Your task to perform on an android device: Go to privacy settings Image 0: 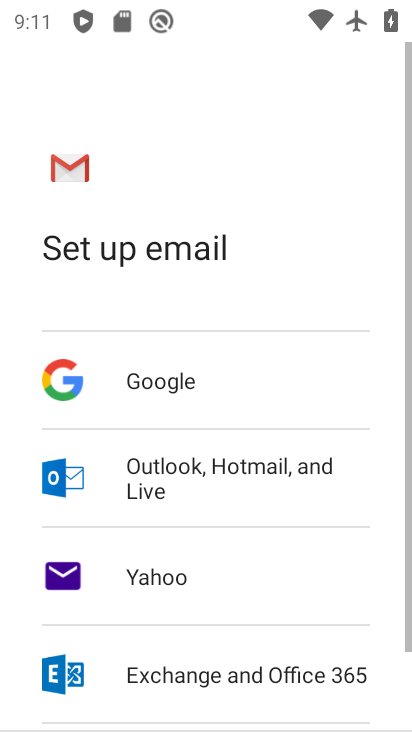
Step 0: press home button
Your task to perform on an android device: Go to privacy settings Image 1: 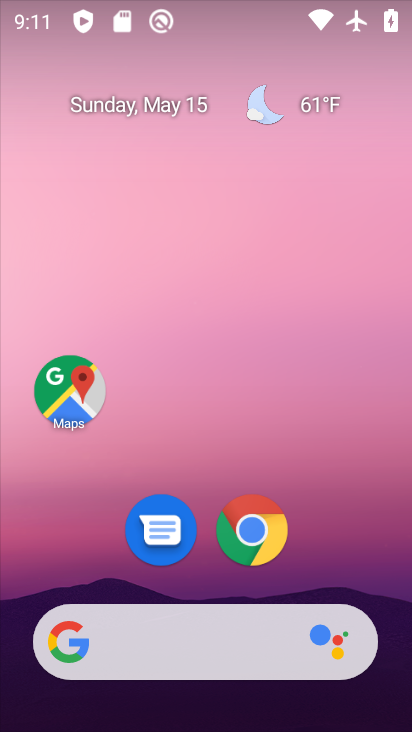
Step 1: drag from (215, 719) to (224, 121)
Your task to perform on an android device: Go to privacy settings Image 2: 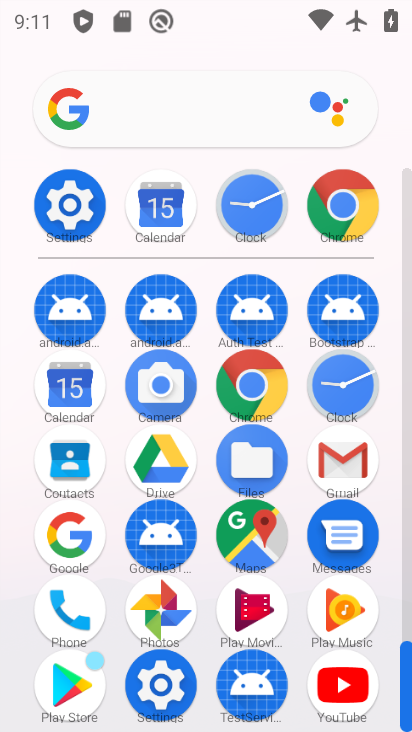
Step 2: click (60, 199)
Your task to perform on an android device: Go to privacy settings Image 3: 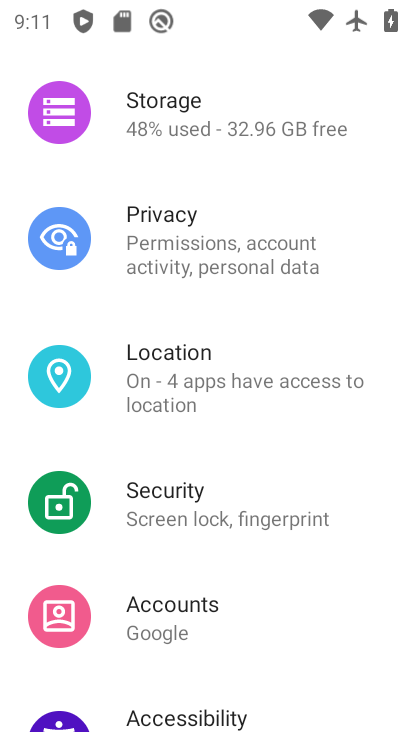
Step 3: click (173, 231)
Your task to perform on an android device: Go to privacy settings Image 4: 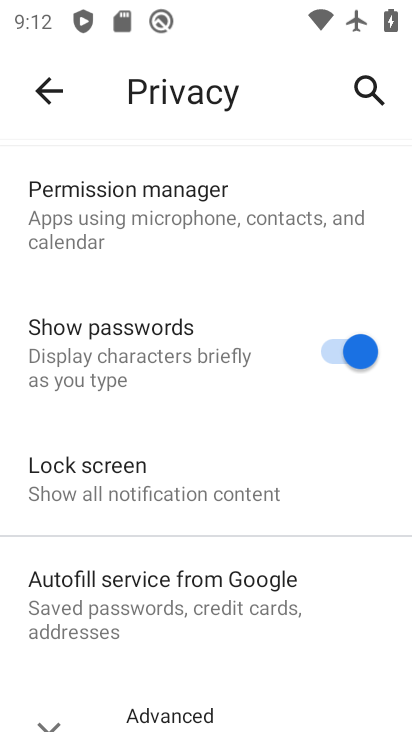
Step 4: task complete